Your task to perform on an android device: empty trash in the gmail app Image 0: 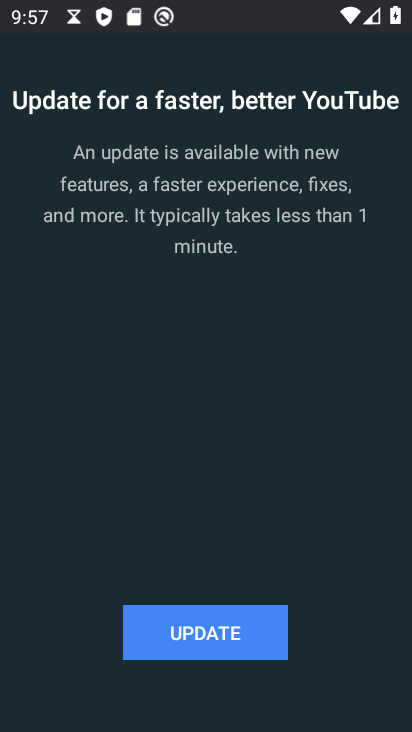
Step 0: press home button
Your task to perform on an android device: empty trash in the gmail app Image 1: 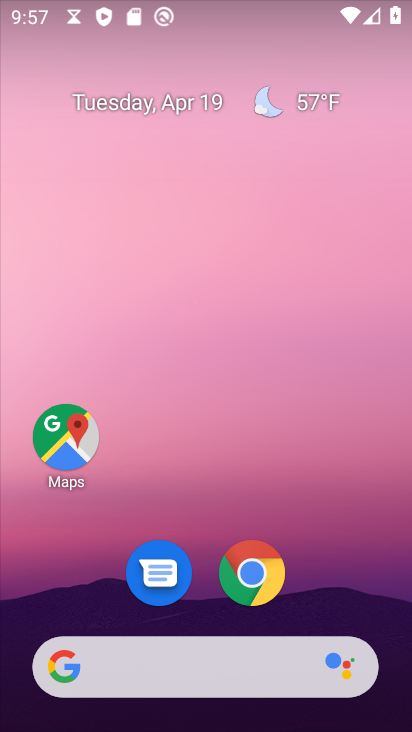
Step 1: drag from (273, 392) to (270, 76)
Your task to perform on an android device: empty trash in the gmail app Image 2: 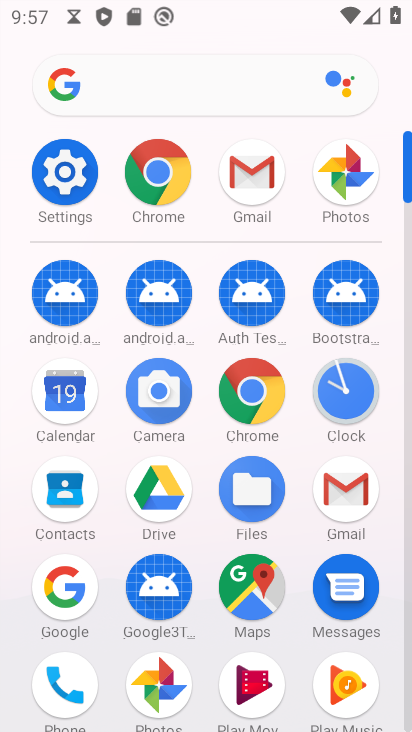
Step 2: click (263, 177)
Your task to perform on an android device: empty trash in the gmail app Image 3: 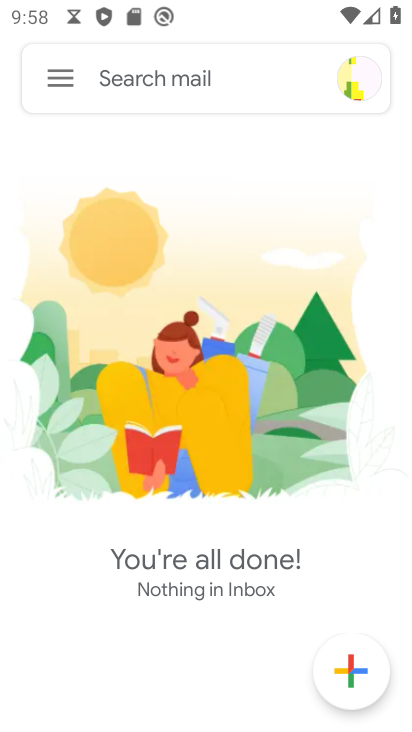
Step 3: click (56, 68)
Your task to perform on an android device: empty trash in the gmail app Image 4: 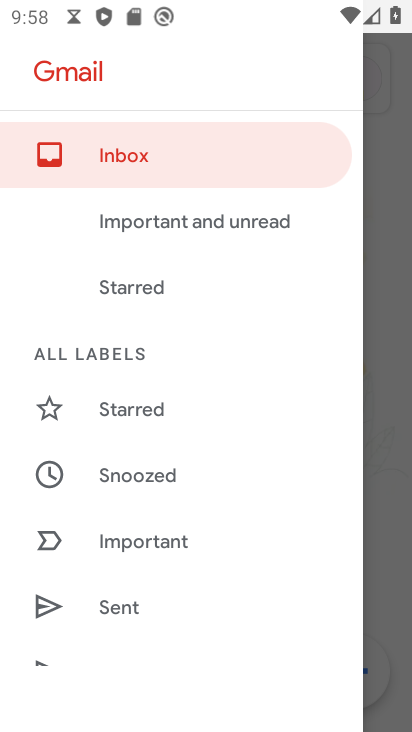
Step 4: drag from (239, 578) to (241, 157)
Your task to perform on an android device: empty trash in the gmail app Image 5: 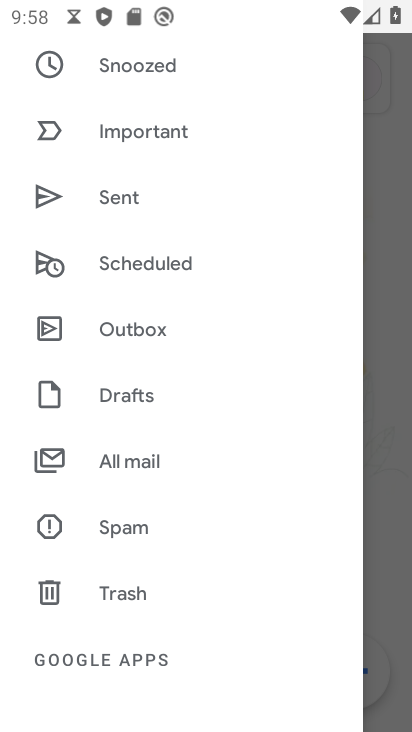
Step 5: click (117, 587)
Your task to perform on an android device: empty trash in the gmail app Image 6: 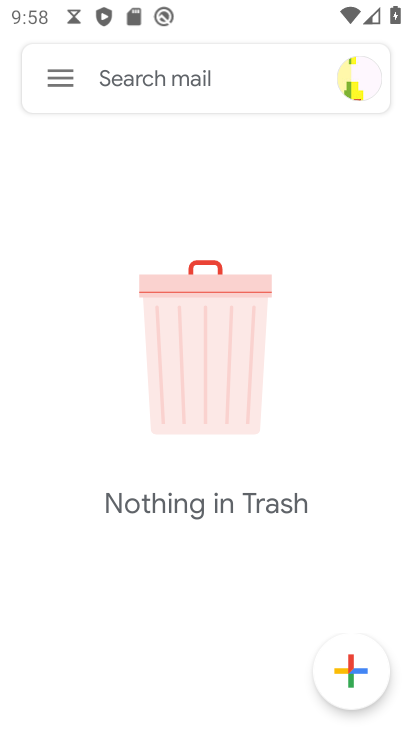
Step 6: task complete